Your task to perform on an android device: Show me recent news Image 0: 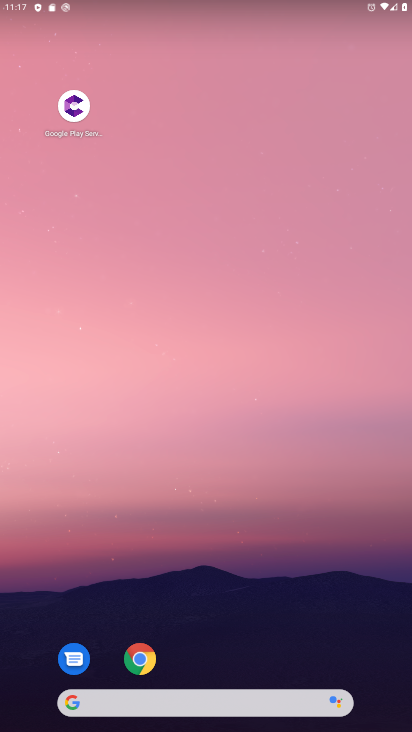
Step 0: click (86, 703)
Your task to perform on an android device: Show me recent news Image 1: 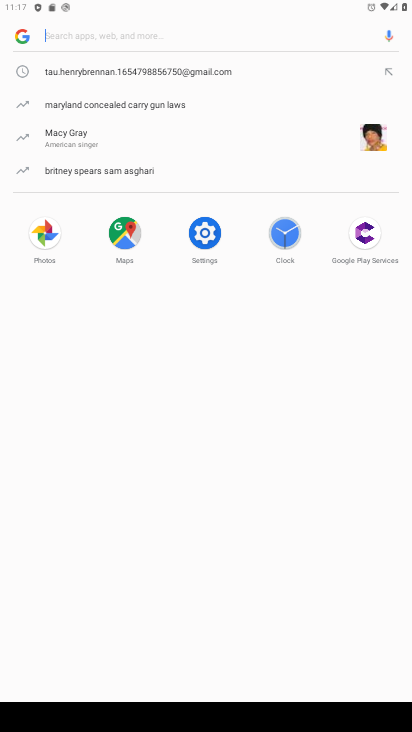
Step 1: click (27, 39)
Your task to perform on an android device: Show me recent news Image 2: 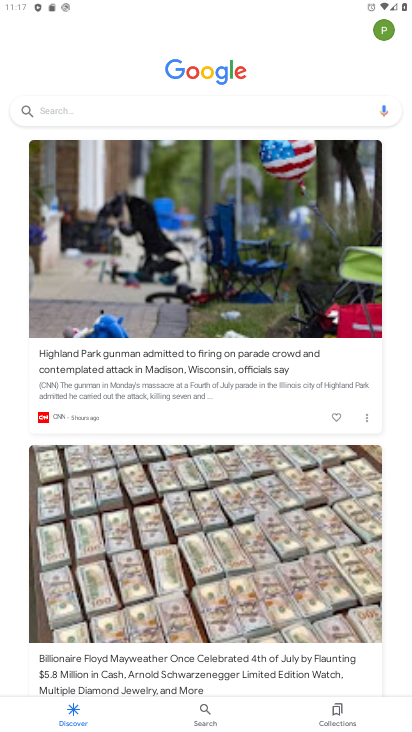
Step 2: task complete